Your task to perform on an android device: change text size in settings app Image 0: 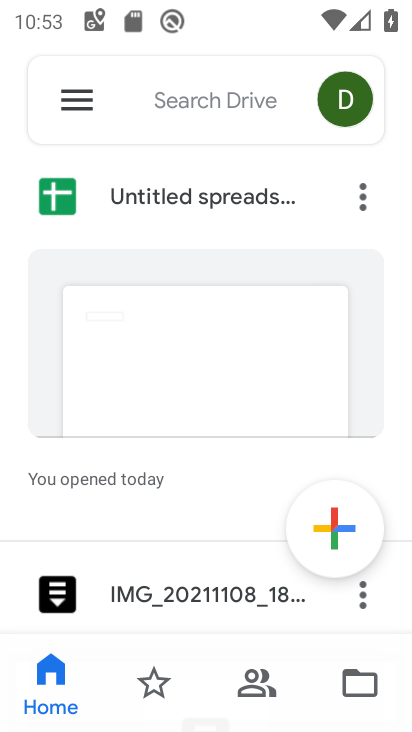
Step 0: press home button
Your task to perform on an android device: change text size in settings app Image 1: 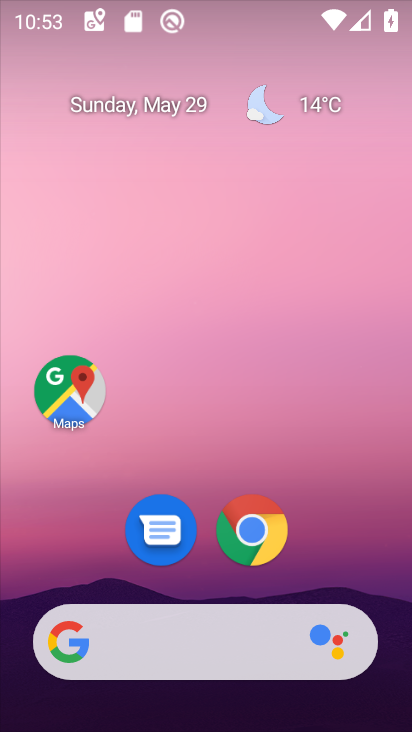
Step 1: drag from (144, 645) to (140, 38)
Your task to perform on an android device: change text size in settings app Image 2: 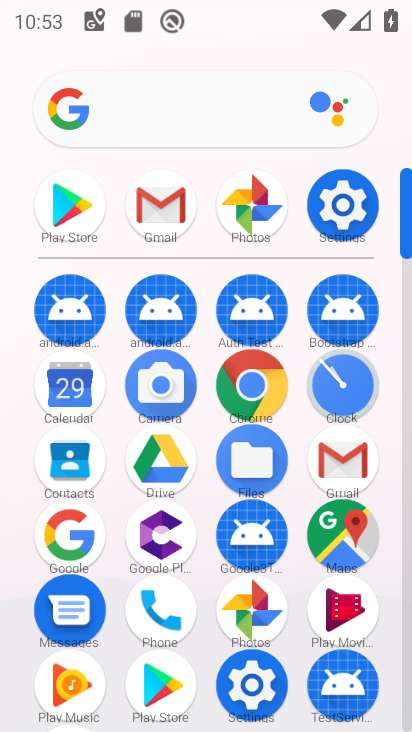
Step 2: click (348, 190)
Your task to perform on an android device: change text size in settings app Image 3: 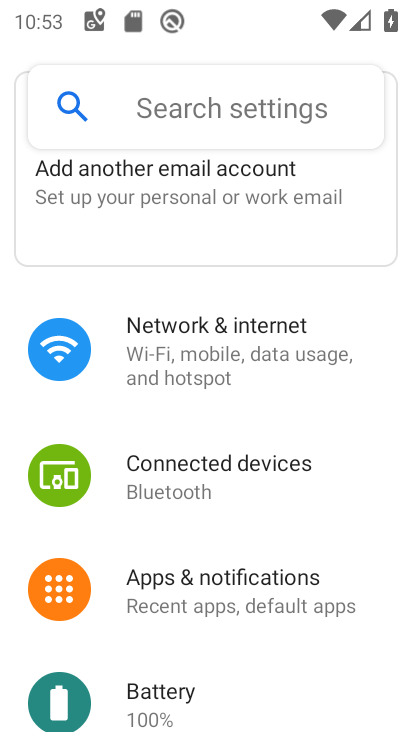
Step 3: drag from (192, 605) to (221, 94)
Your task to perform on an android device: change text size in settings app Image 4: 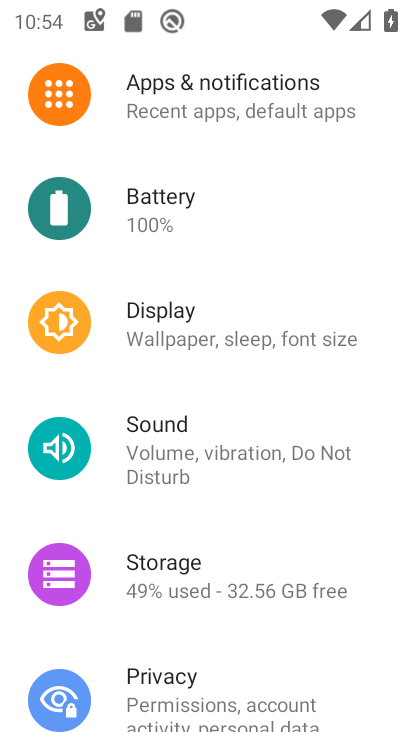
Step 4: click (201, 311)
Your task to perform on an android device: change text size in settings app Image 5: 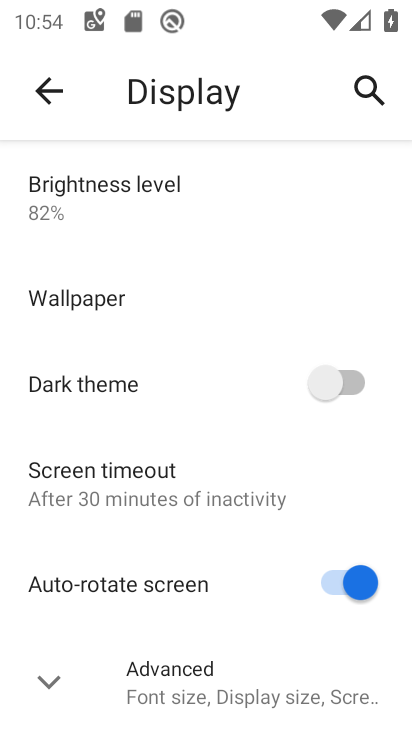
Step 5: click (221, 675)
Your task to perform on an android device: change text size in settings app Image 6: 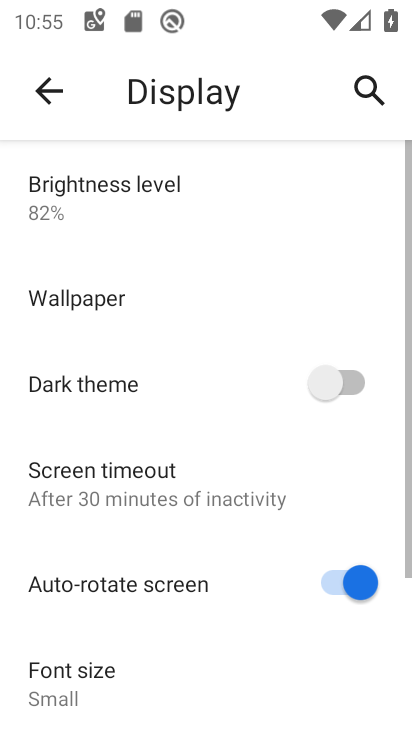
Step 6: drag from (221, 675) to (120, 362)
Your task to perform on an android device: change text size in settings app Image 7: 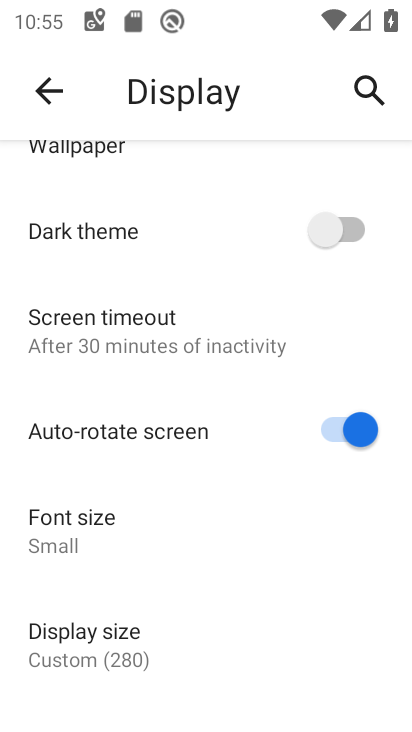
Step 7: click (111, 539)
Your task to perform on an android device: change text size in settings app Image 8: 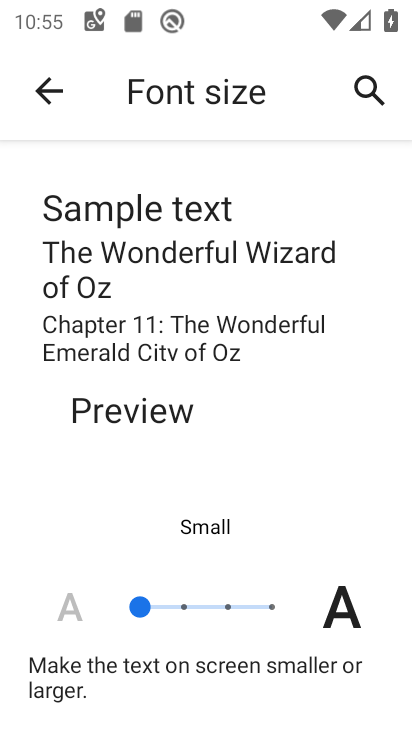
Step 8: click (181, 603)
Your task to perform on an android device: change text size in settings app Image 9: 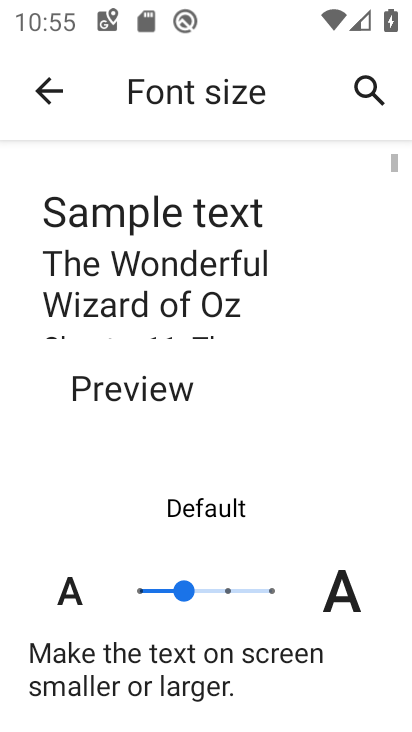
Step 9: task complete